Your task to perform on an android device: Clear all items from cart on amazon. Search for "dell xps" on amazon, select the first entry, and add it to the cart. Image 0: 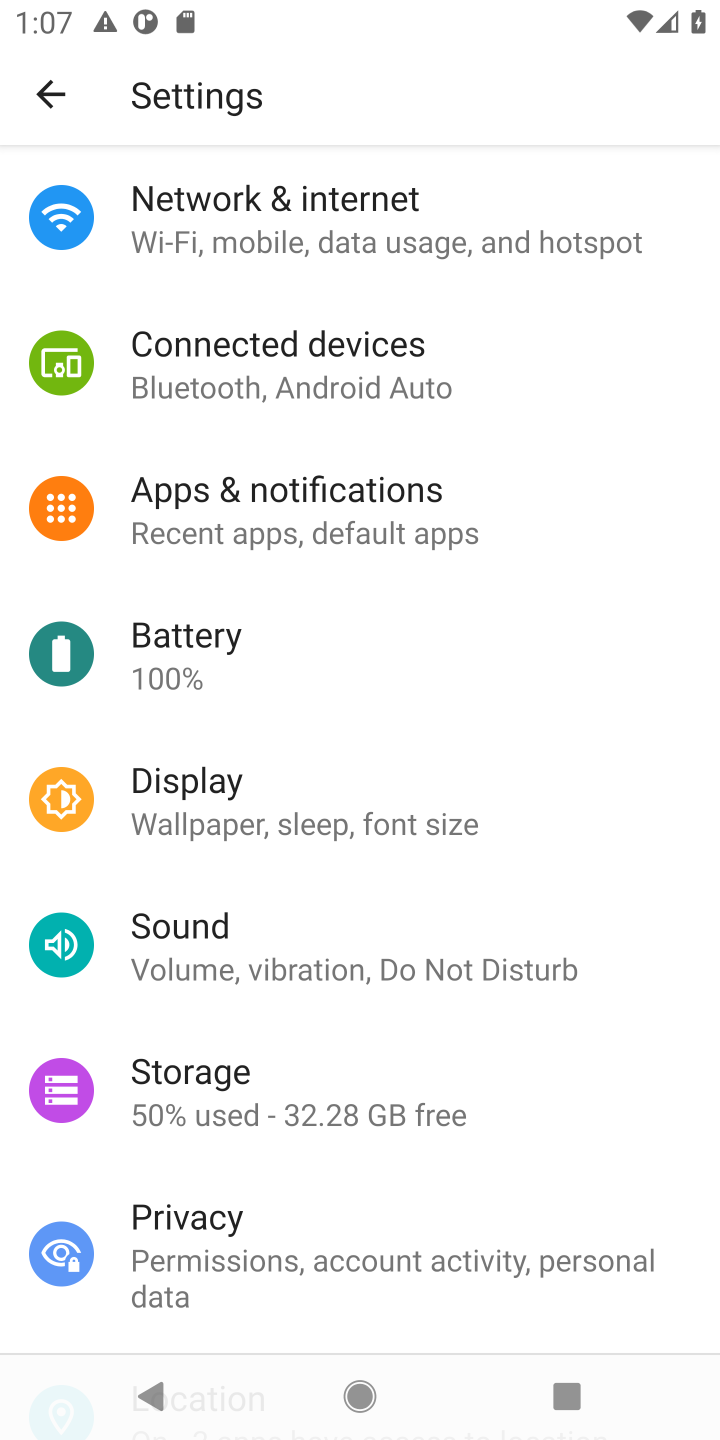
Step 0: press home button
Your task to perform on an android device: Clear all items from cart on amazon. Search for "dell xps" on amazon, select the first entry, and add it to the cart. Image 1: 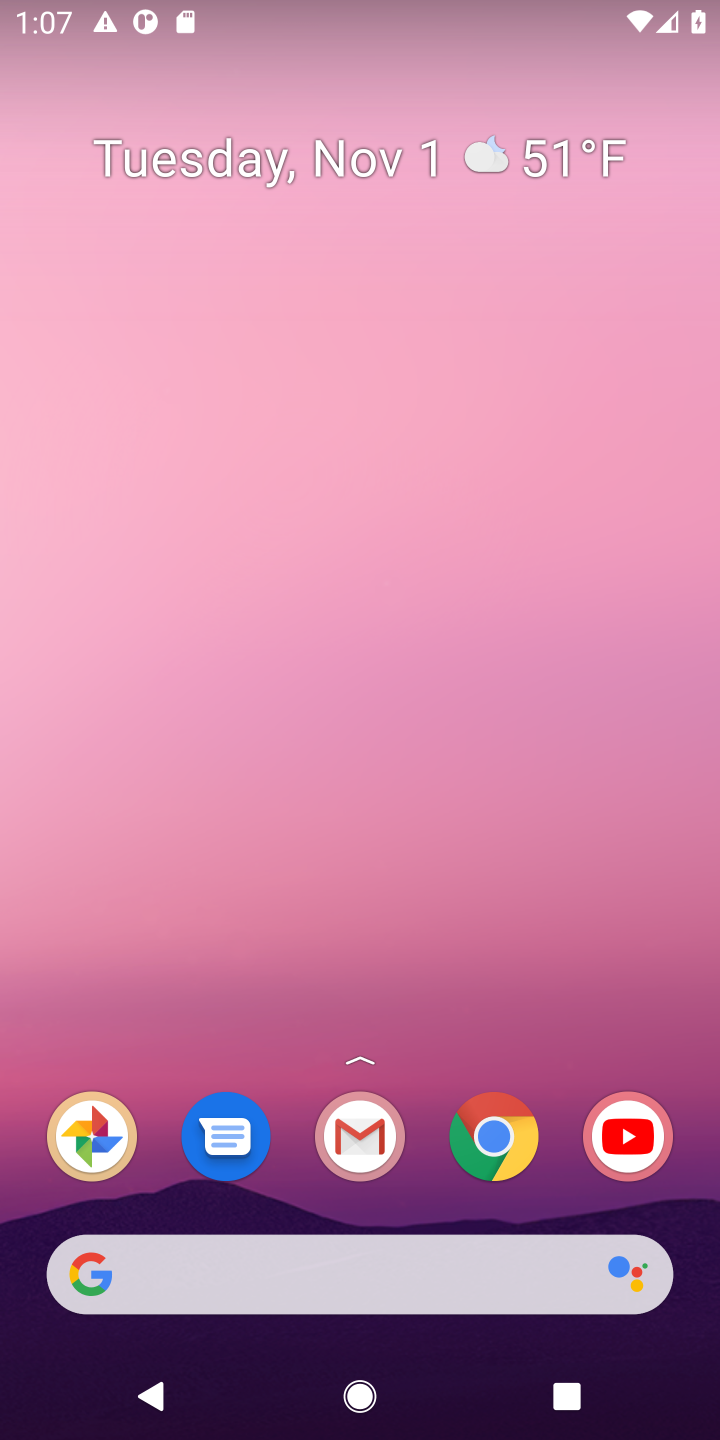
Step 1: click (202, 1282)
Your task to perform on an android device: Clear all items from cart on amazon. Search for "dell xps" on amazon, select the first entry, and add it to the cart. Image 2: 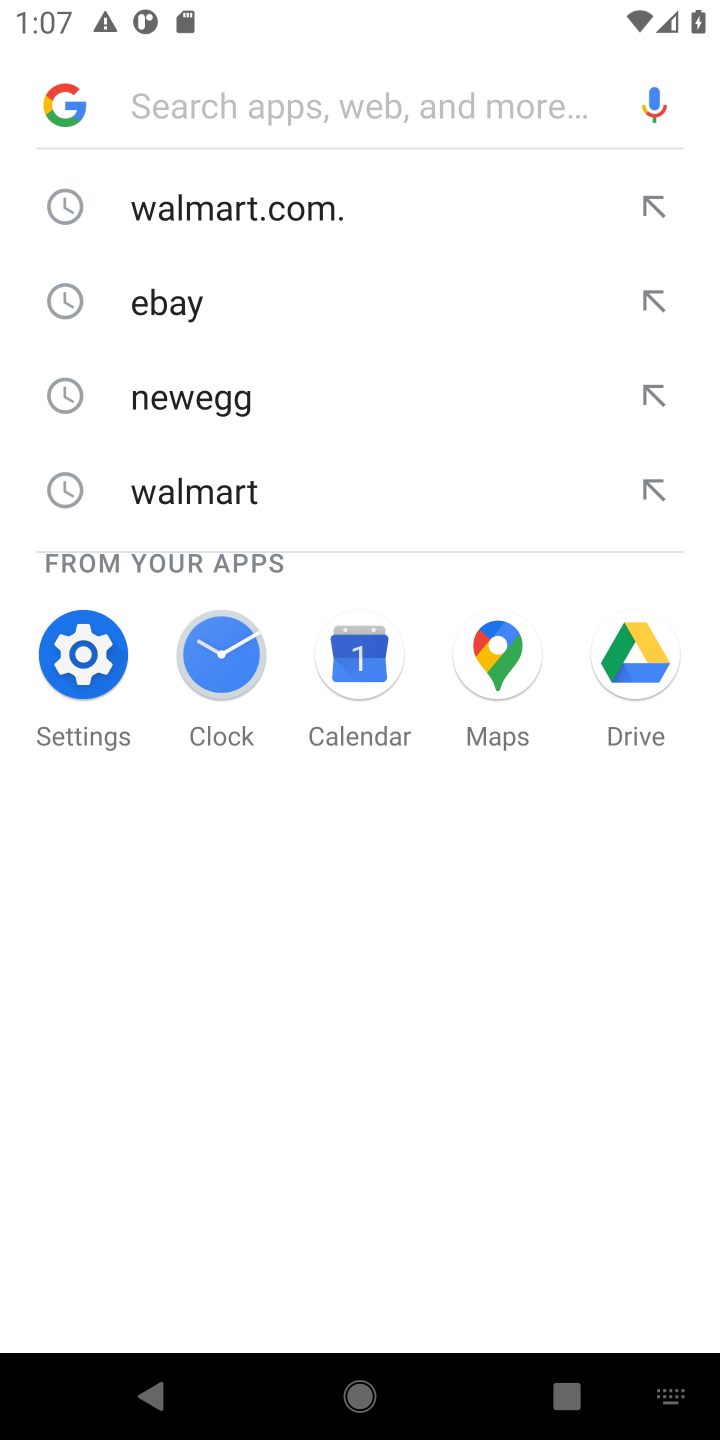
Step 2: type "amazon"
Your task to perform on an android device: Clear all items from cart on amazon. Search for "dell xps" on amazon, select the first entry, and add it to the cart. Image 3: 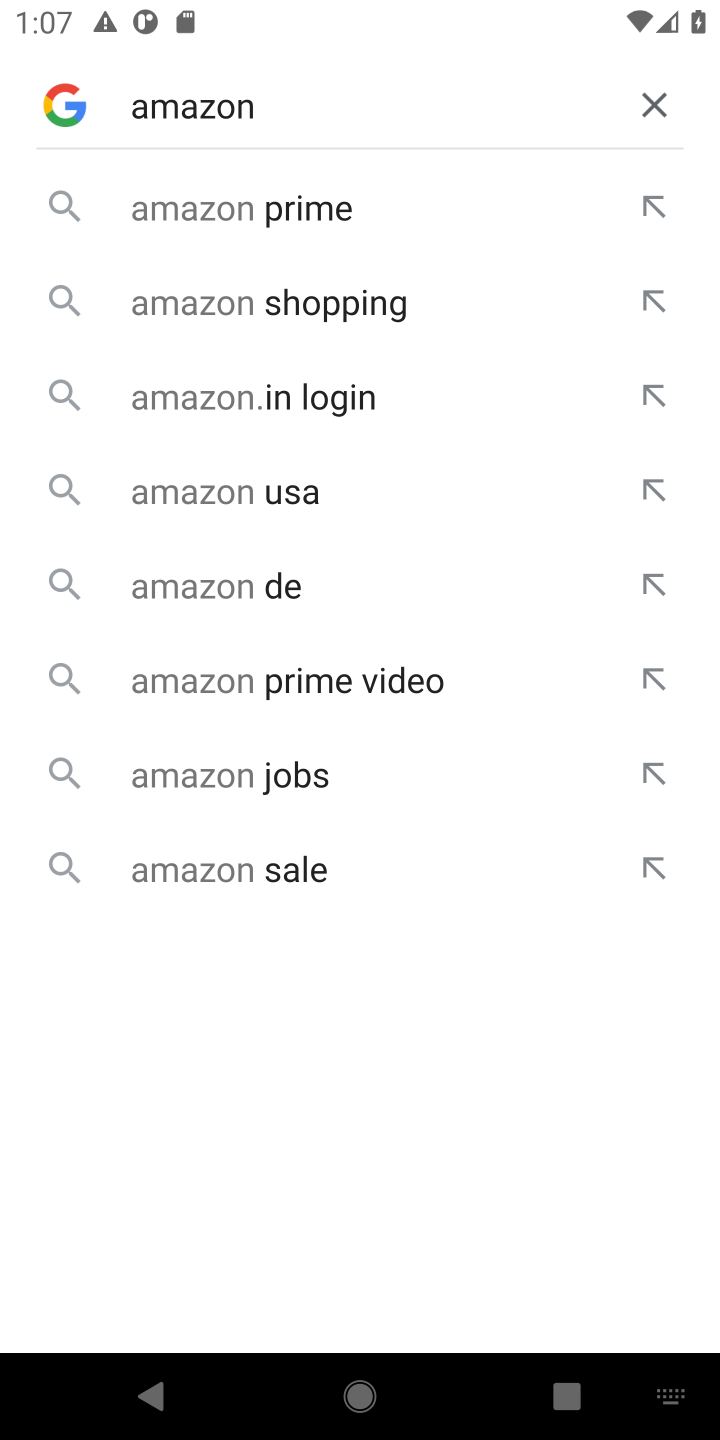
Step 3: press enter
Your task to perform on an android device: Clear all items from cart on amazon. Search for "dell xps" on amazon, select the first entry, and add it to the cart. Image 4: 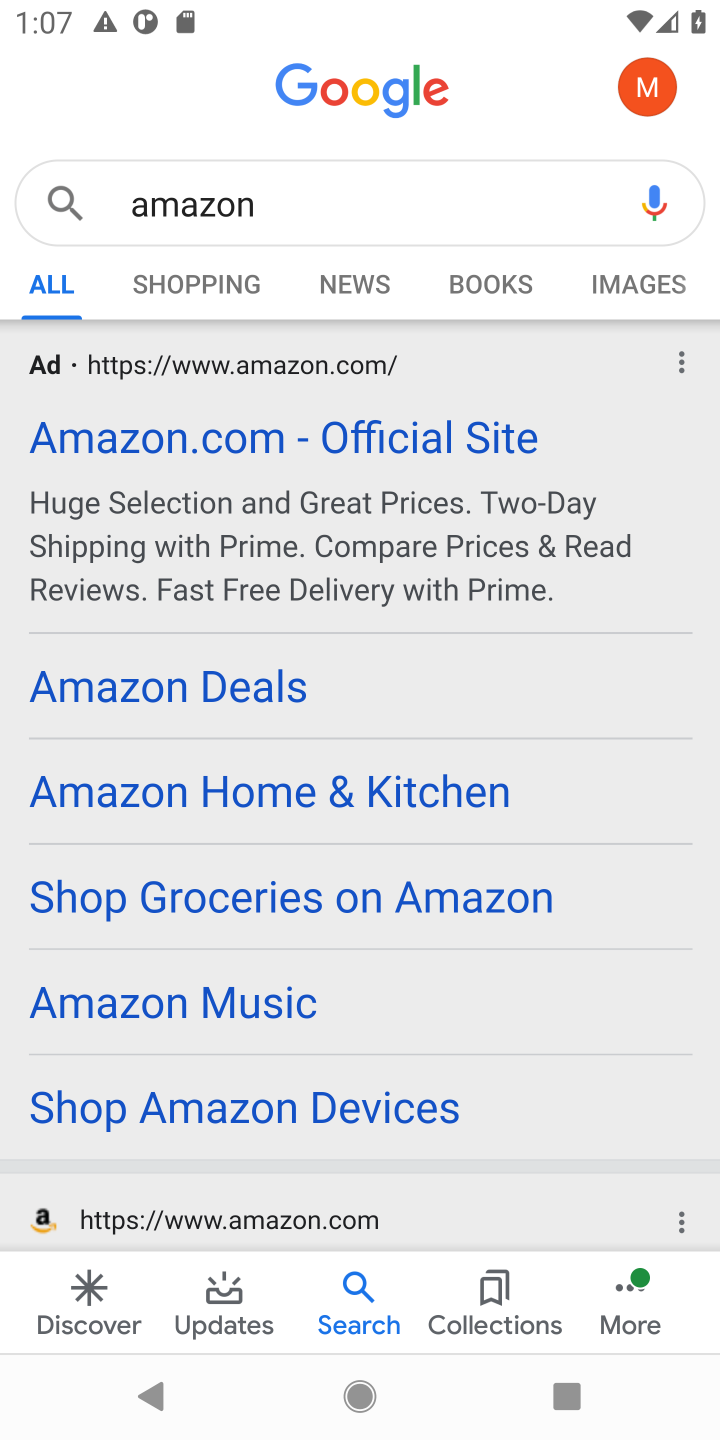
Step 4: click (166, 441)
Your task to perform on an android device: Clear all items from cart on amazon. Search for "dell xps" on amazon, select the first entry, and add it to the cart. Image 5: 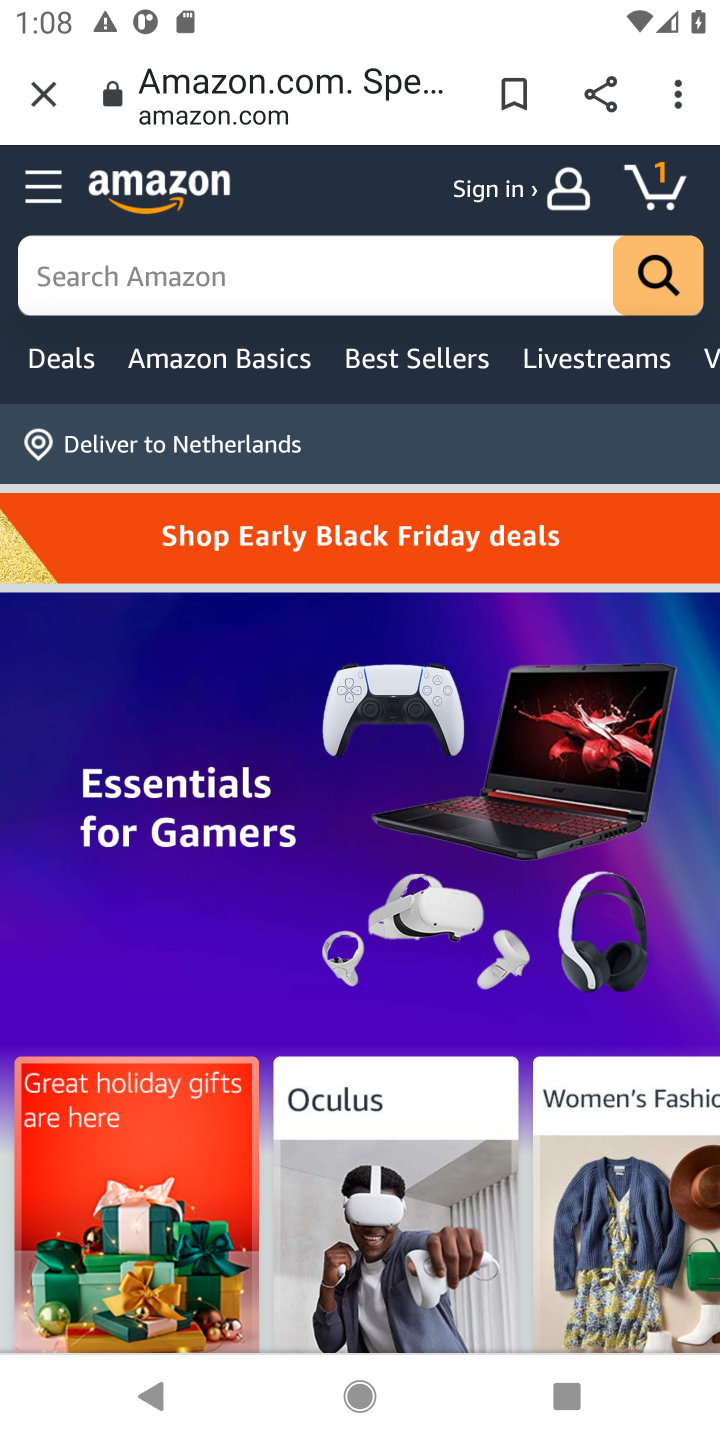
Step 5: click (664, 183)
Your task to perform on an android device: Clear all items from cart on amazon. Search for "dell xps" on amazon, select the first entry, and add it to the cart. Image 6: 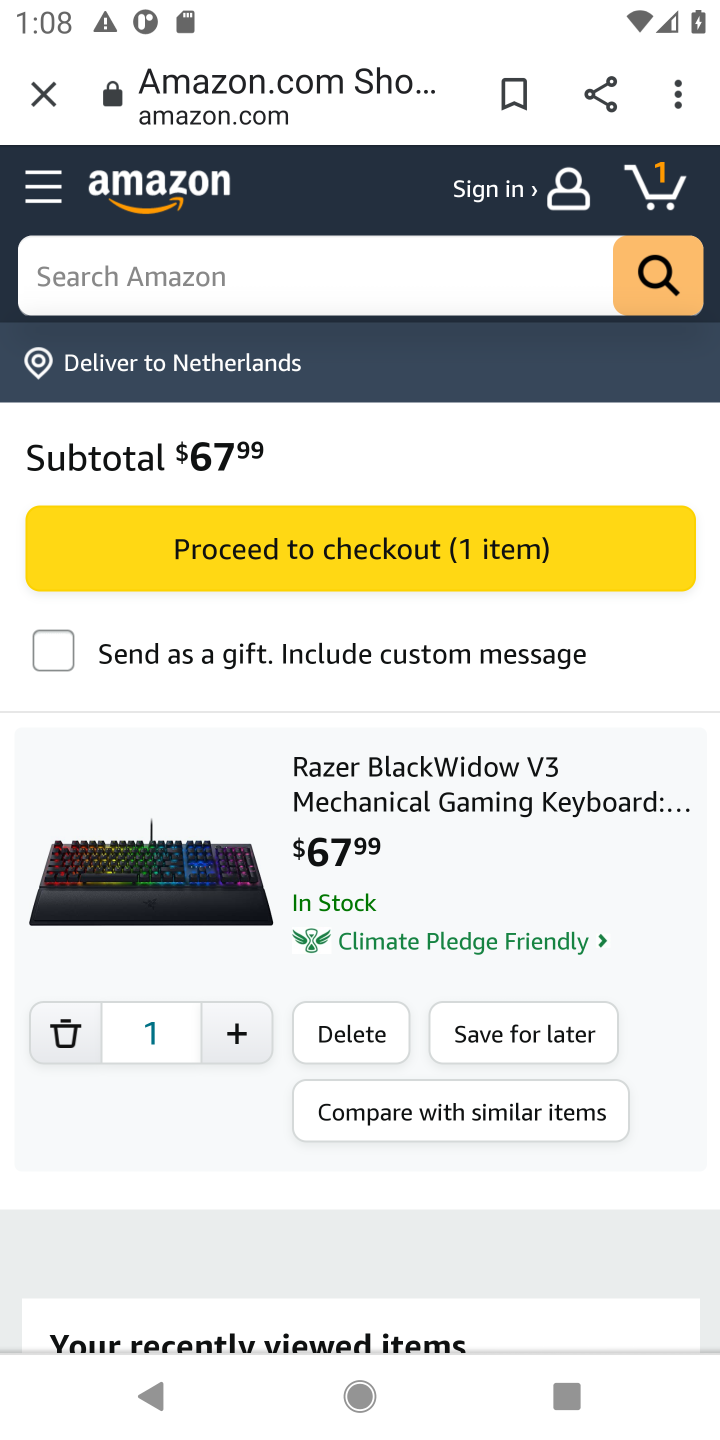
Step 6: click (60, 1030)
Your task to perform on an android device: Clear all items from cart on amazon. Search for "dell xps" on amazon, select the first entry, and add it to the cart. Image 7: 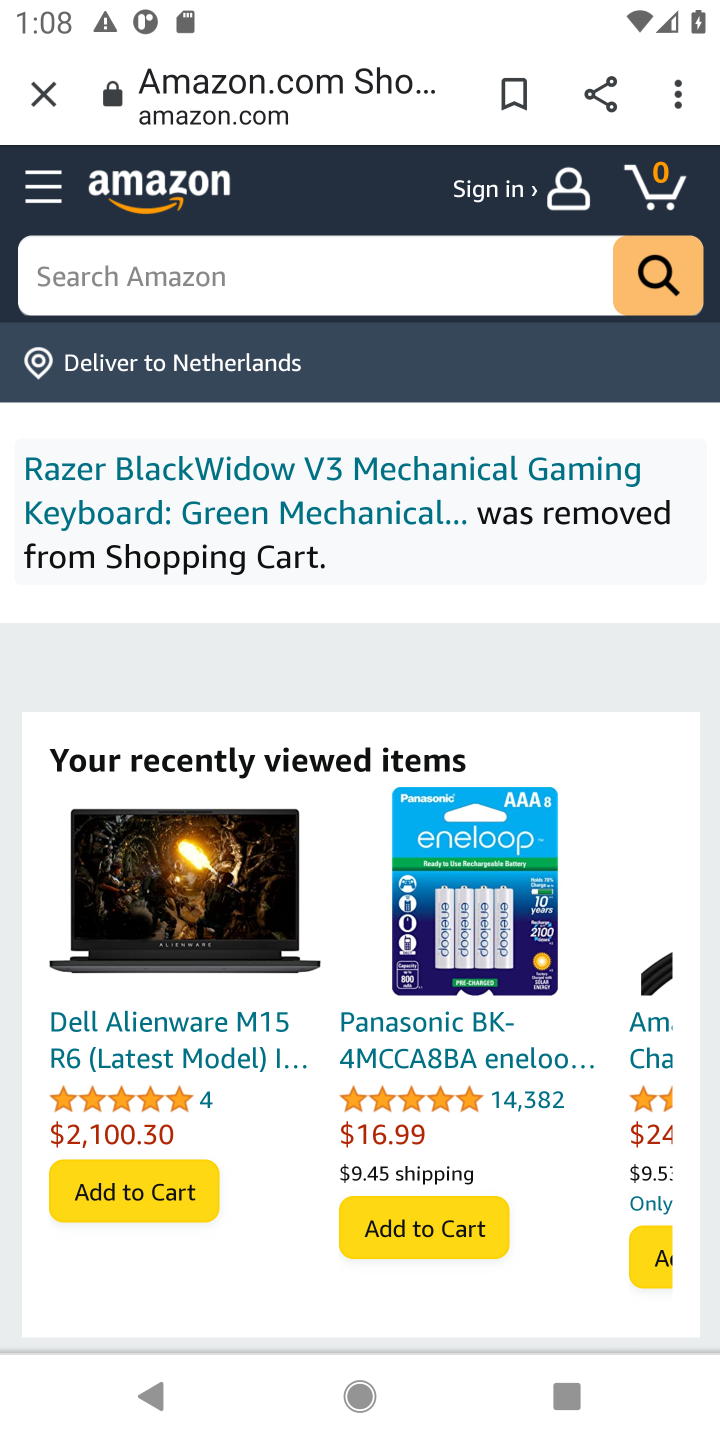
Step 7: click (150, 261)
Your task to perform on an android device: Clear all items from cart on amazon. Search for "dell xps" on amazon, select the first entry, and add it to the cart. Image 8: 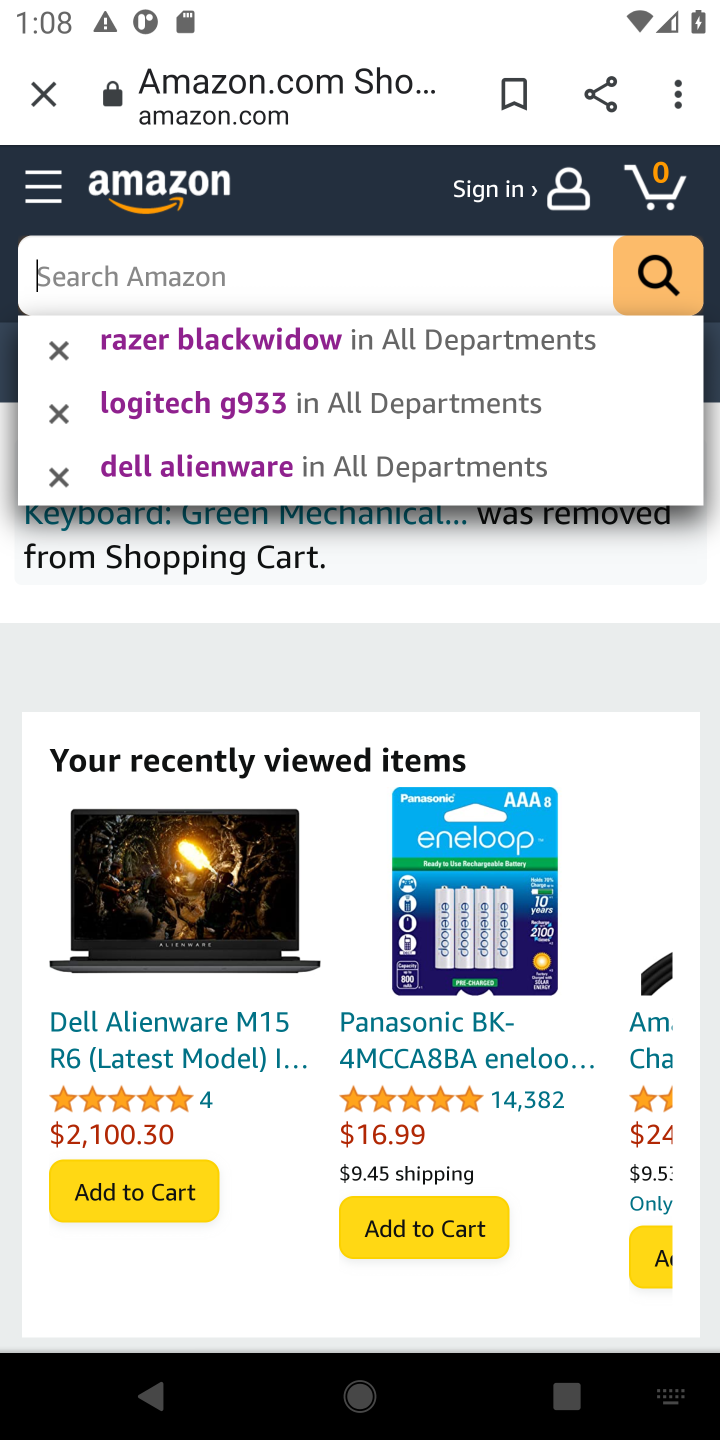
Step 8: type "dell xps"
Your task to perform on an android device: Clear all items from cart on amazon. Search for "dell xps" on amazon, select the first entry, and add it to the cart. Image 9: 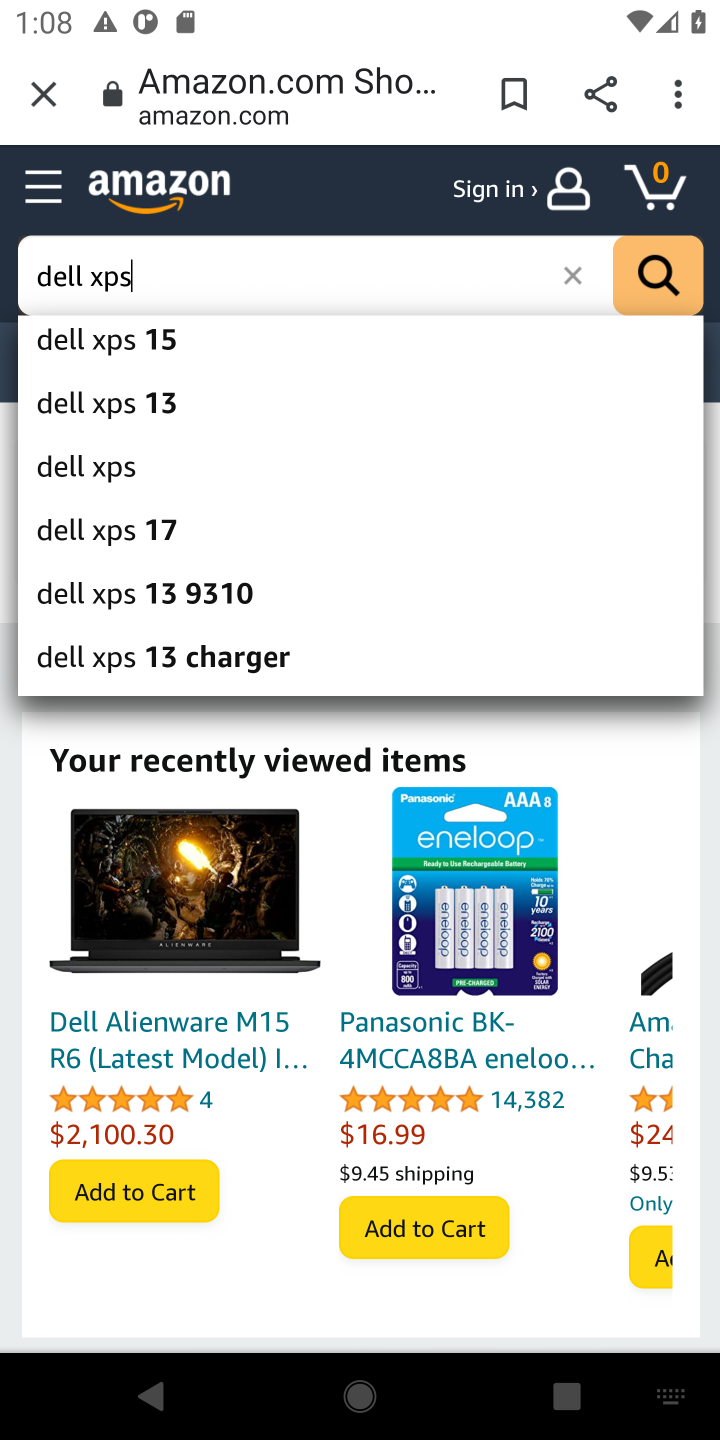
Step 9: click (658, 270)
Your task to perform on an android device: Clear all items from cart on amazon. Search for "dell xps" on amazon, select the first entry, and add it to the cart. Image 10: 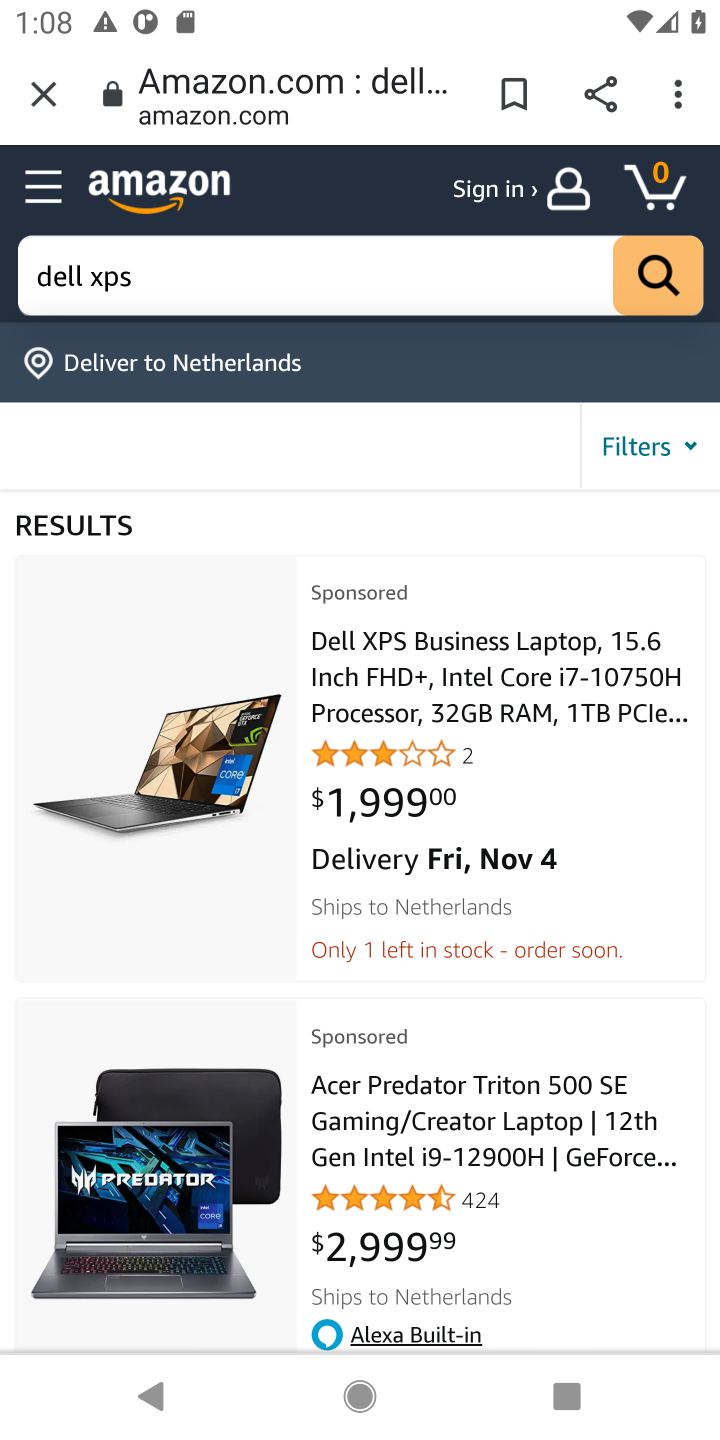
Step 10: click (413, 665)
Your task to perform on an android device: Clear all items from cart on amazon. Search for "dell xps" on amazon, select the first entry, and add it to the cart. Image 11: 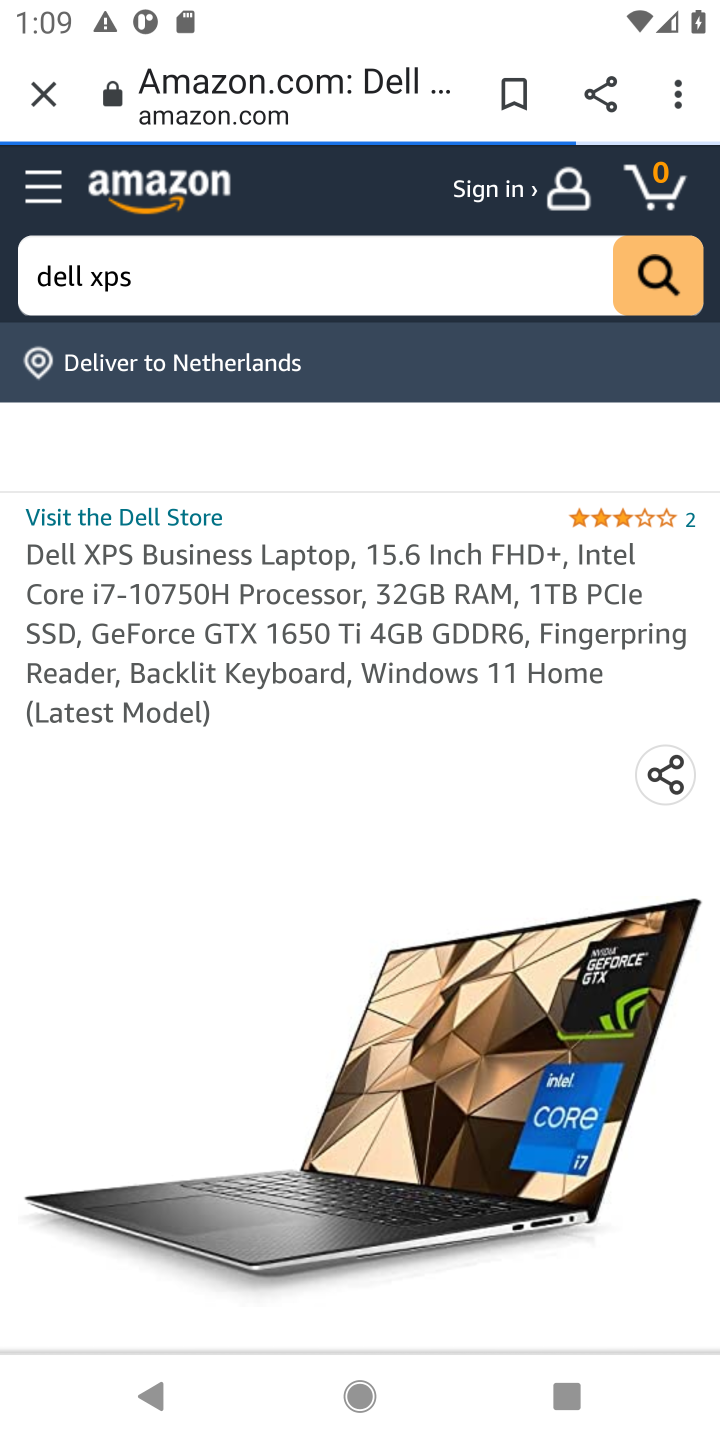
Step 11: drag from (412, 1109) to (367, 561)
Your task to perform on an android device: Clear all items from cart on amazon. Search for "dell xps" on amazon, select the first entry, and add it to the cart. Image 12: 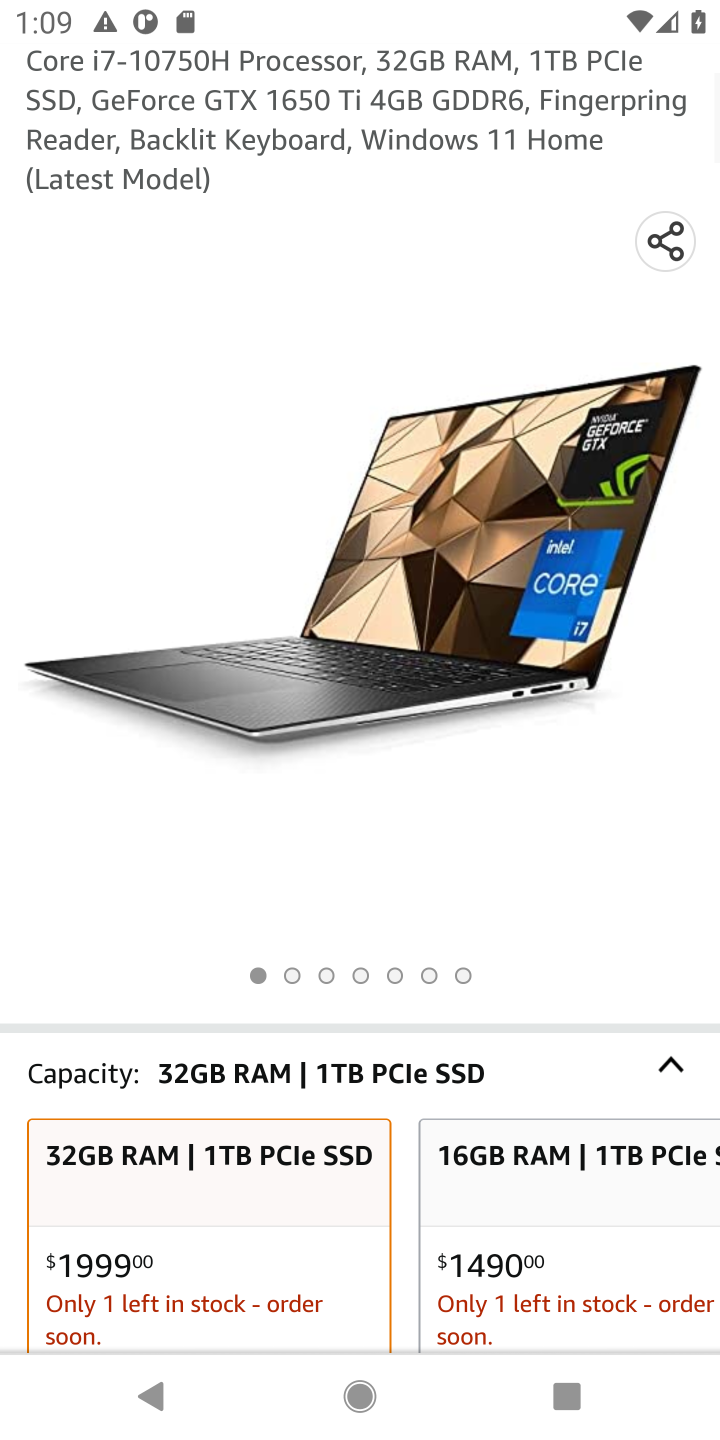
Step 12: drag from (337, 1071) to (340, 389)
Your task to perform on an android device: Clear all items from cart on amazon. Search for "dell xps" on amazon, select the first entry, and add it to the cart. Image 13: 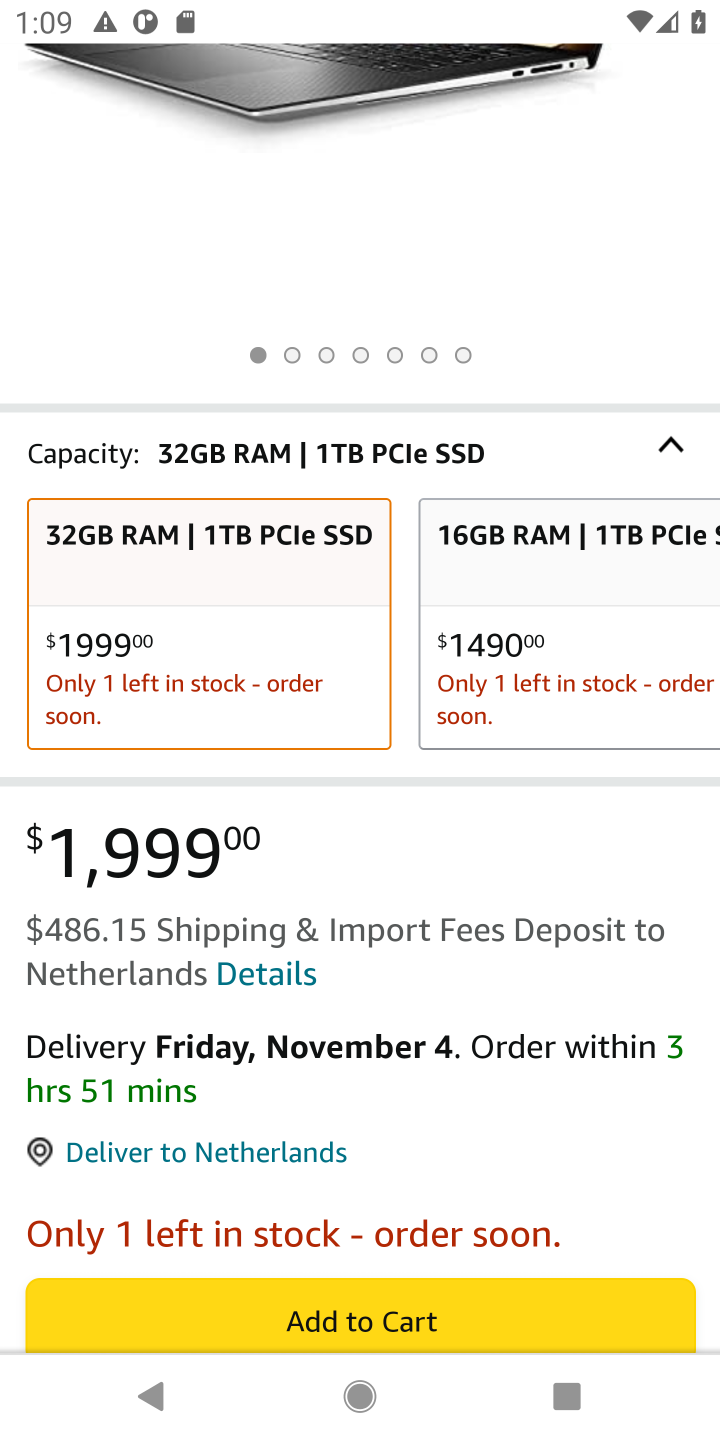
Step 13: drag from (341, 1064) to (444, 378)
Your task to perform on an android device: Clear all items from cart on amazon. Search for "dell xps" on amazon, select the first entry, and add it to the cart. Image 14: 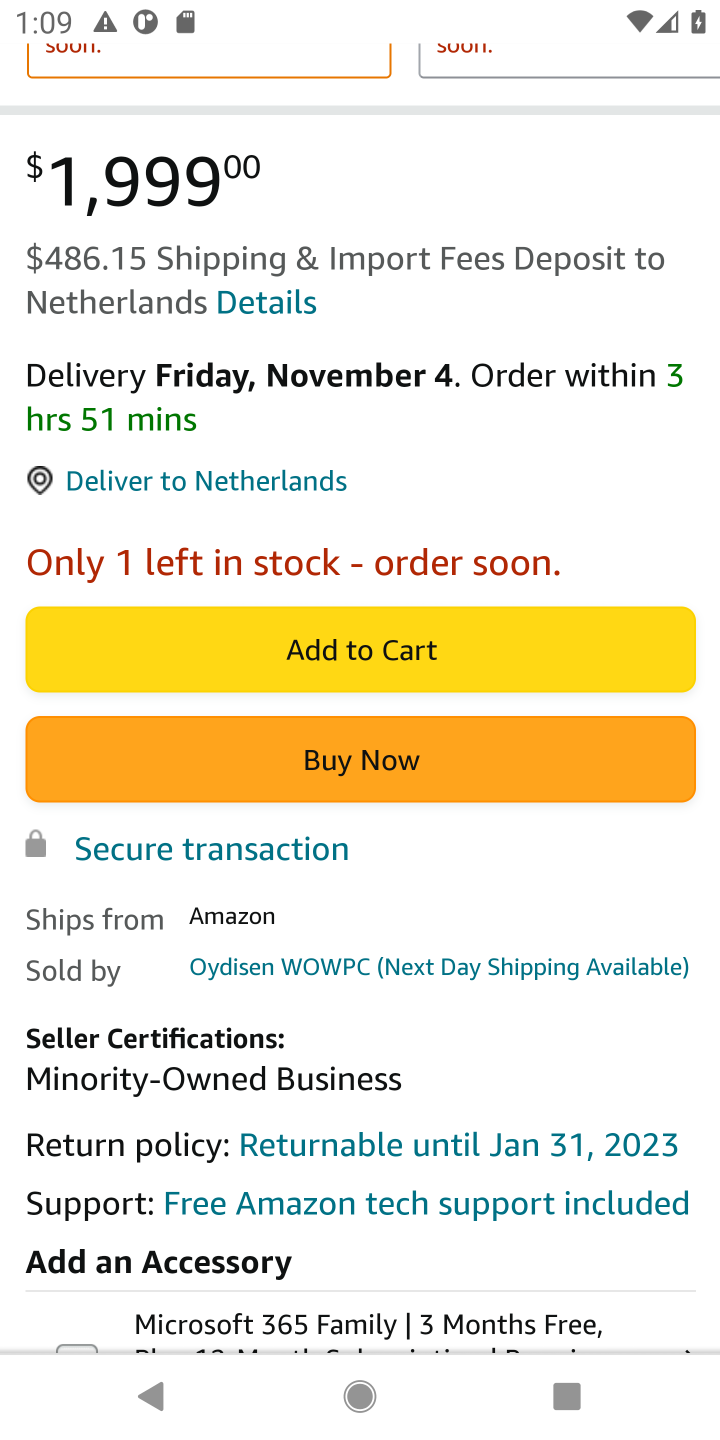
Step 14: click (389, 651)
Your task to perform on an android device: Clear all items from cart on amazon. Search for "dell xps" on amazon, select the first entry, and add it to the cart. Image 15: 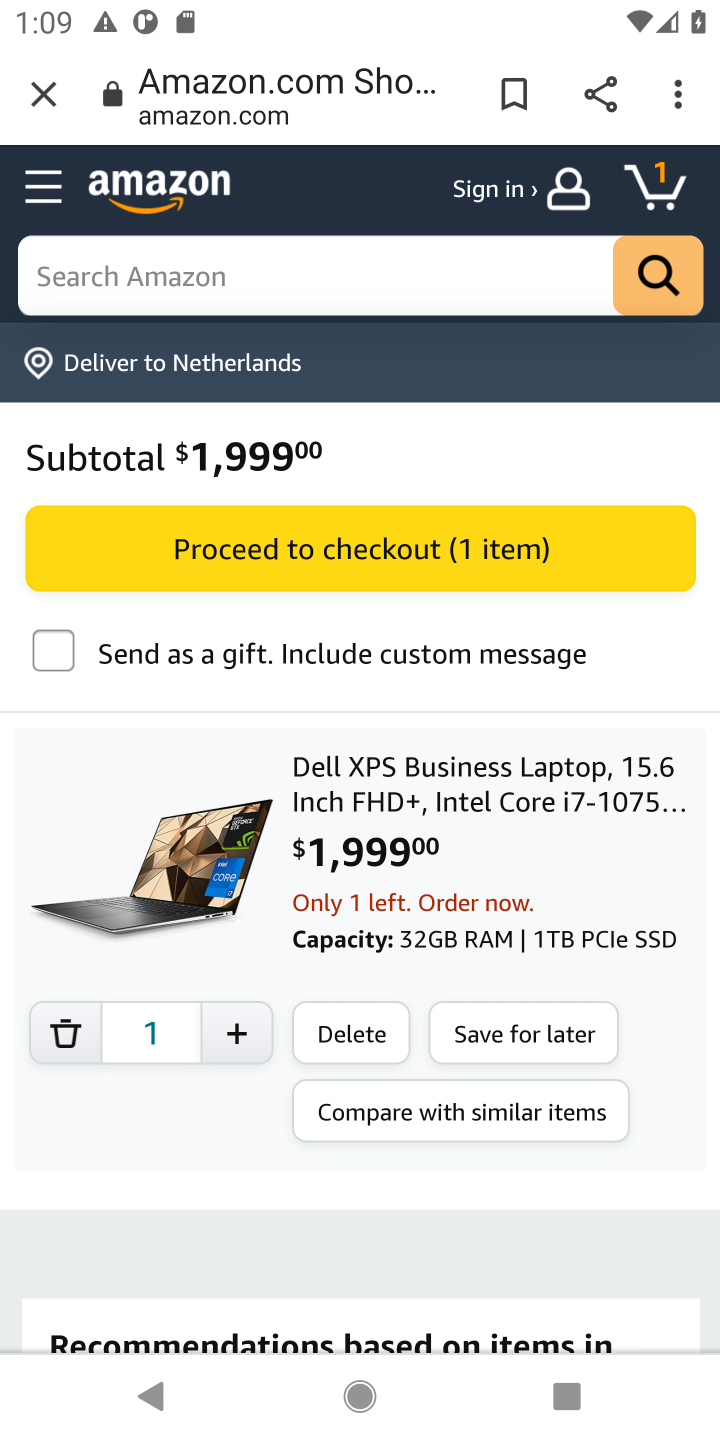
Step 15: task complete